Your task to perform on an android device: change alarm snooze length Image 0: 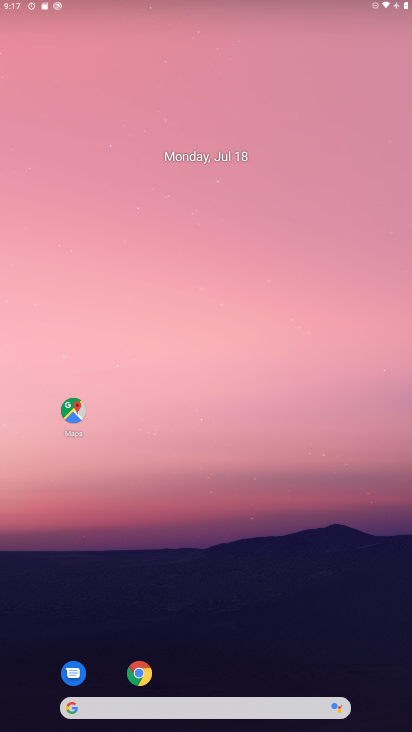
Step 0: press home button
Your task to perform on an android device: change alarm snooze length Image 1: 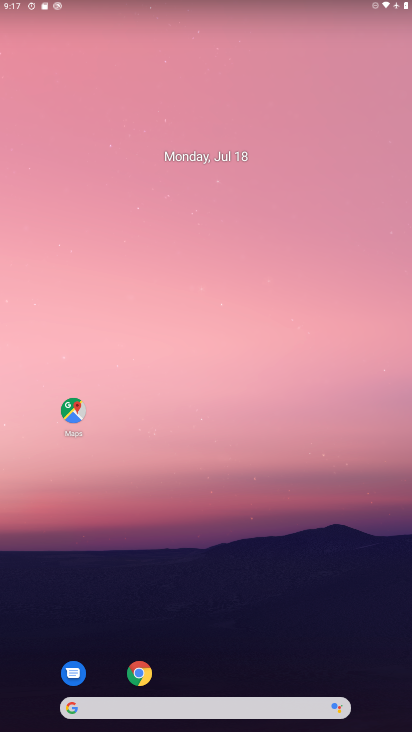
Step 1: drag from (239, 647) to (338, 1)
Your task to perform on an android device: change alarm snooze length Image 2: 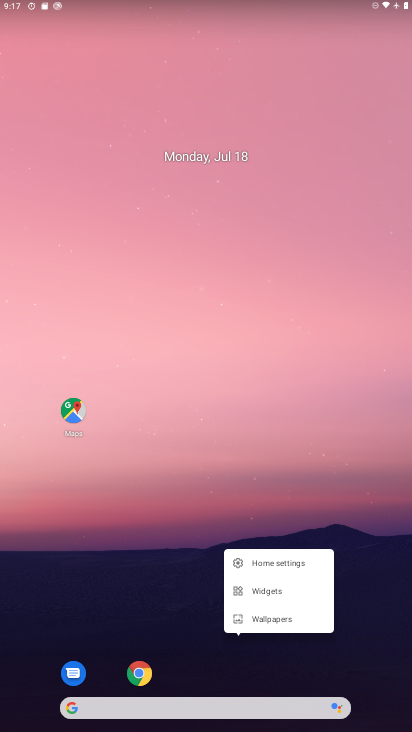
Step 2: drag from (210, 652) to (163, 8)
Your task to perform on an android device: change alarm snooze length Image 3: 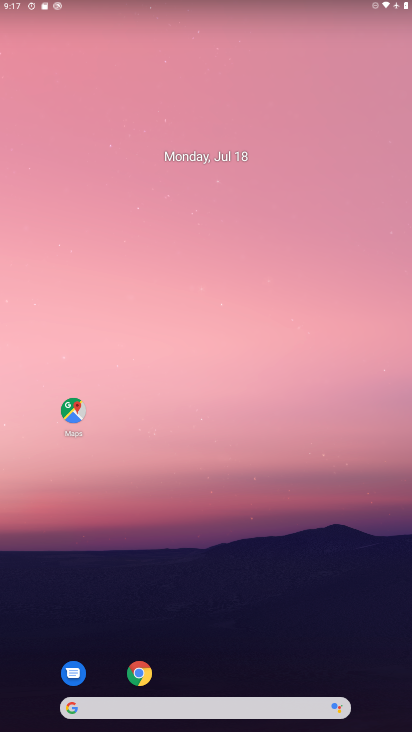
Step 3: drag from (219, 662) to (248, 21)
Your task to perform on an android device: change alarm snooze length Image 4: 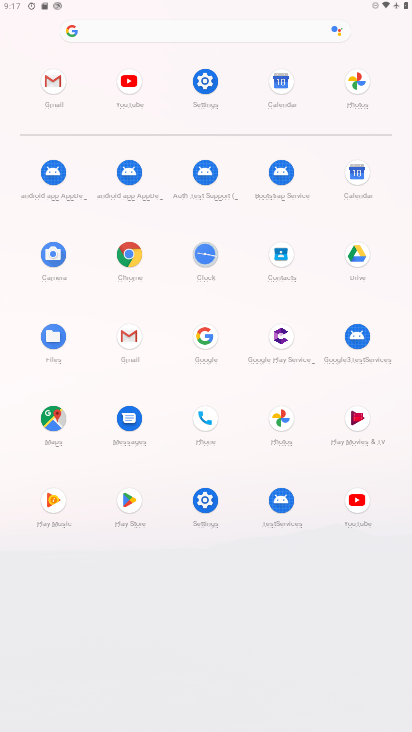
Step 4: click (204, 257)
Your task to perform on an android device: change alarm snooze length Image 5: 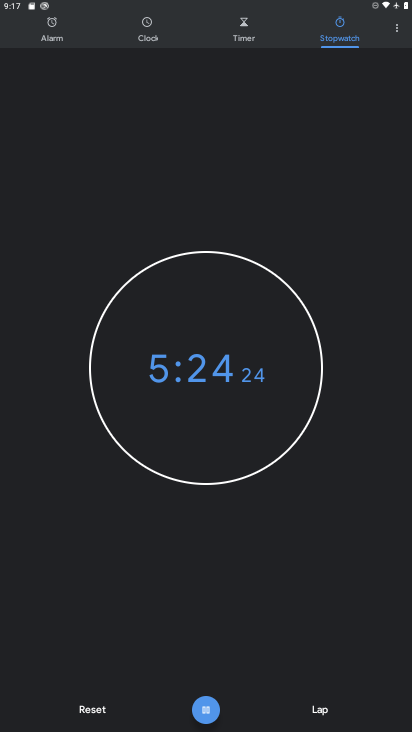
Step 5: click (398, 17)
Your task to perform on an android device: change alarm snooze length Image 6: 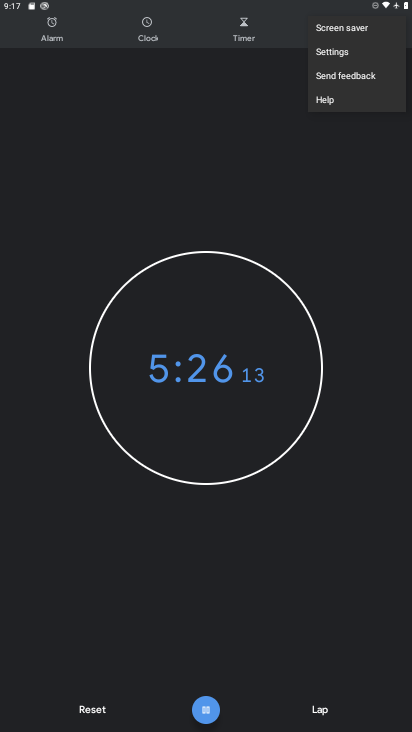
Step 6: click (331, 58)
Your task to perform on an android device: change alarm snooze length Image 7: 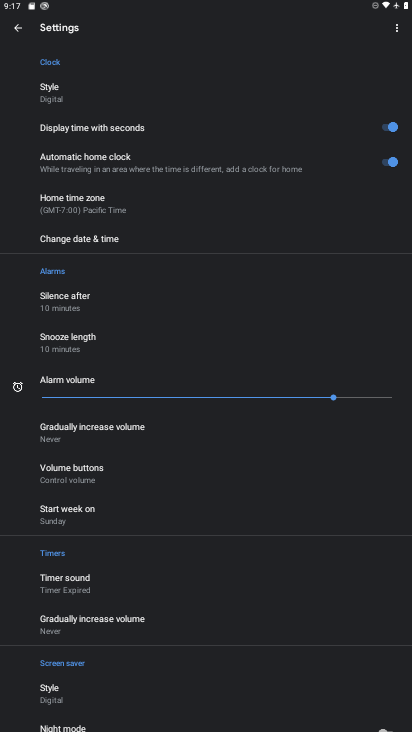
Step 7: click (56, 341)
Your task to perform on an android device: change alarm snooze length Image 8: 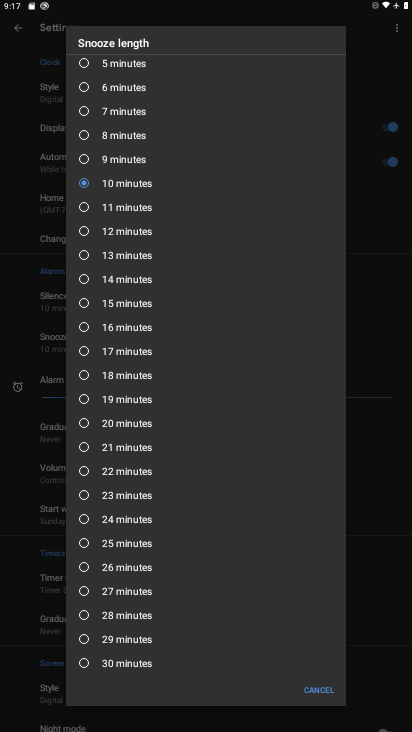
Step 8: click (83, 330)
Your task to perform on an android device: change alarm snooze length Image 9: 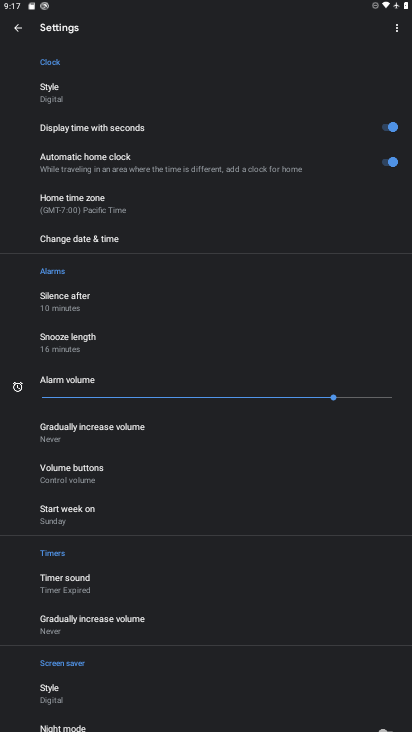
Step 9: task complete